Your task to perform on an android device: Go to Wikipedia Image 0: 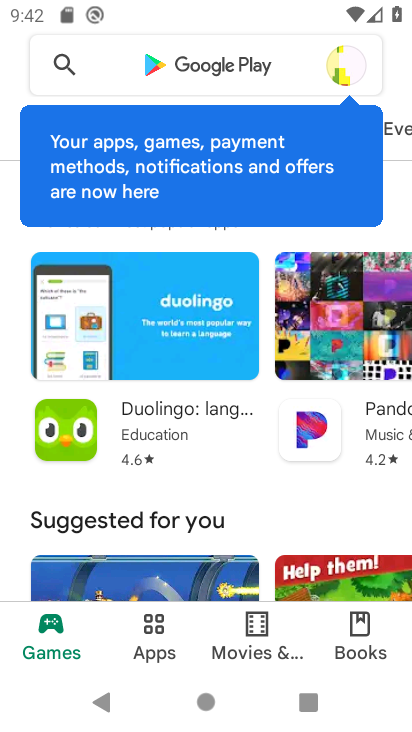
Step 0: press back button
Your task to perform on an android device: Go to Wikipedia Image 1: 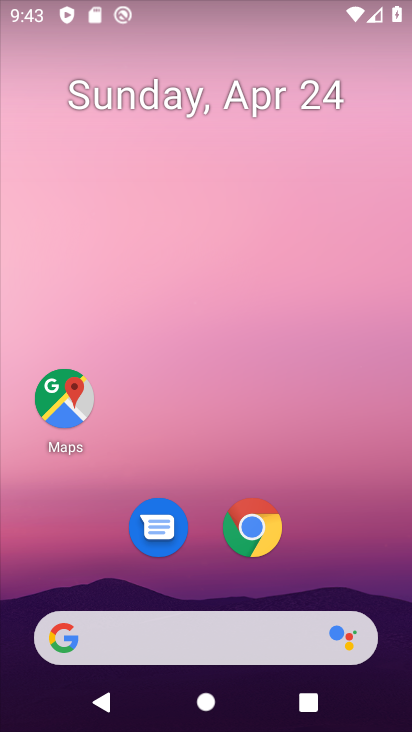
Step 1: click (262, 523)
Your task to perform on an android device: Go to Wikipedia Image 2: 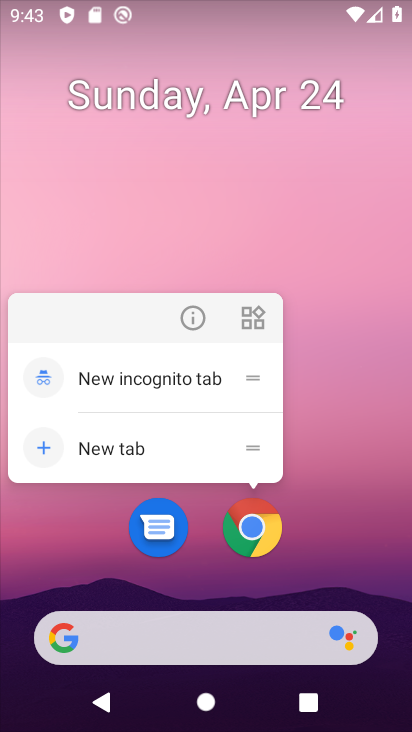
Step 2: click (254, 522)
Your task to perform on an android device: Go to Wikipedia Image 3: 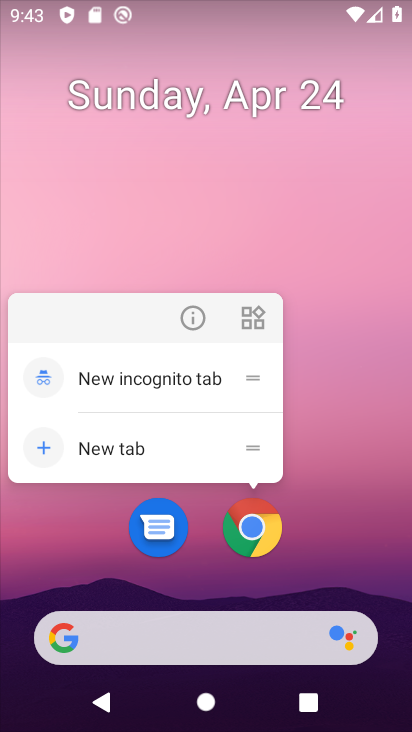
Step 3: click (263, 524)
Your task to perform on an android device: Go to Wikipedia Image 4: 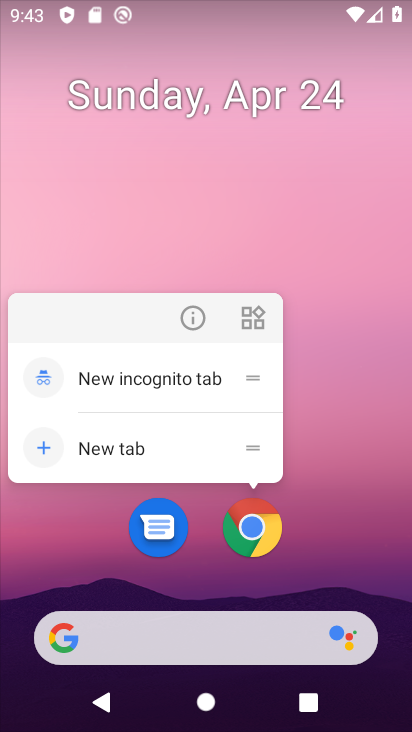
Step 4: click (251, 531)
Your task to perform on an android device: Go to Wikipedia Image 5: 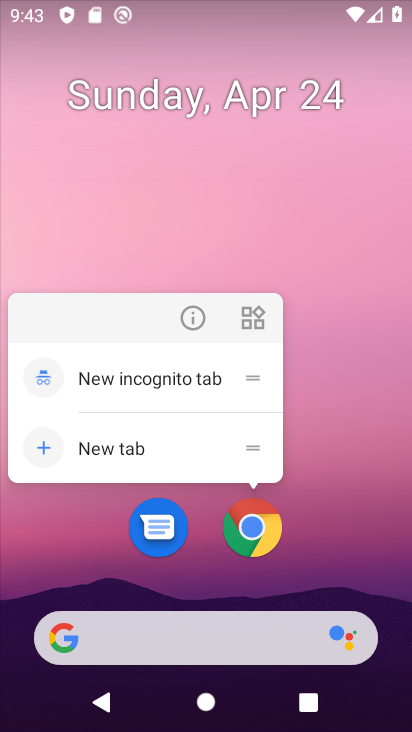
Step 5: click (261, 535)
Your task to perform on an android device: Go to Wikipedia Image 6: 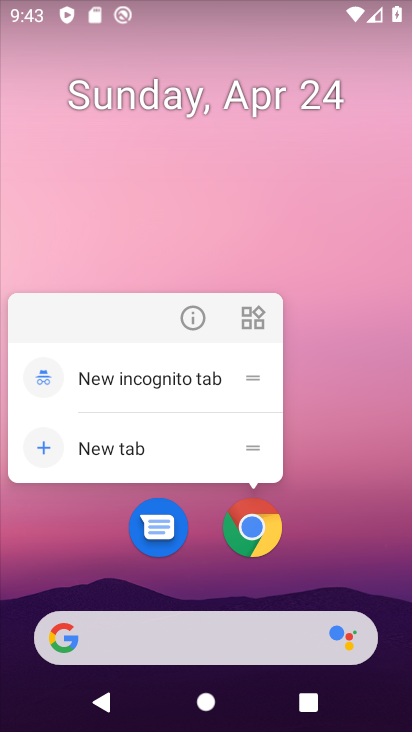
Step 6: click (254, 535)
Your task to perform on an android device: Go to Wikipedia Image 7: 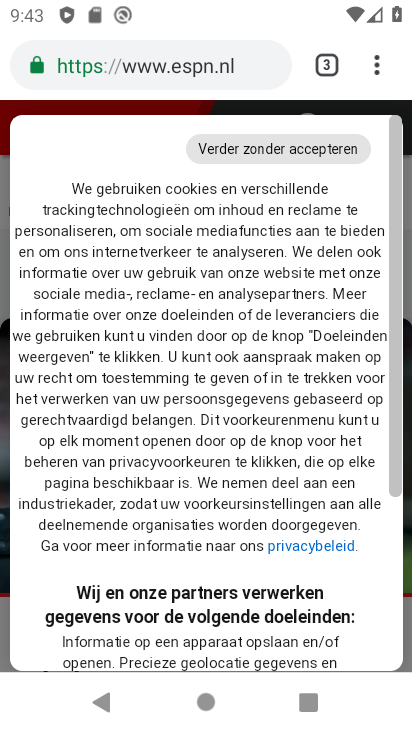
Step 7: task complete